Your task to perform on an android device: Search for jbl flip 4 on amazon, select the first entry, and add it to the cart. Image 0: 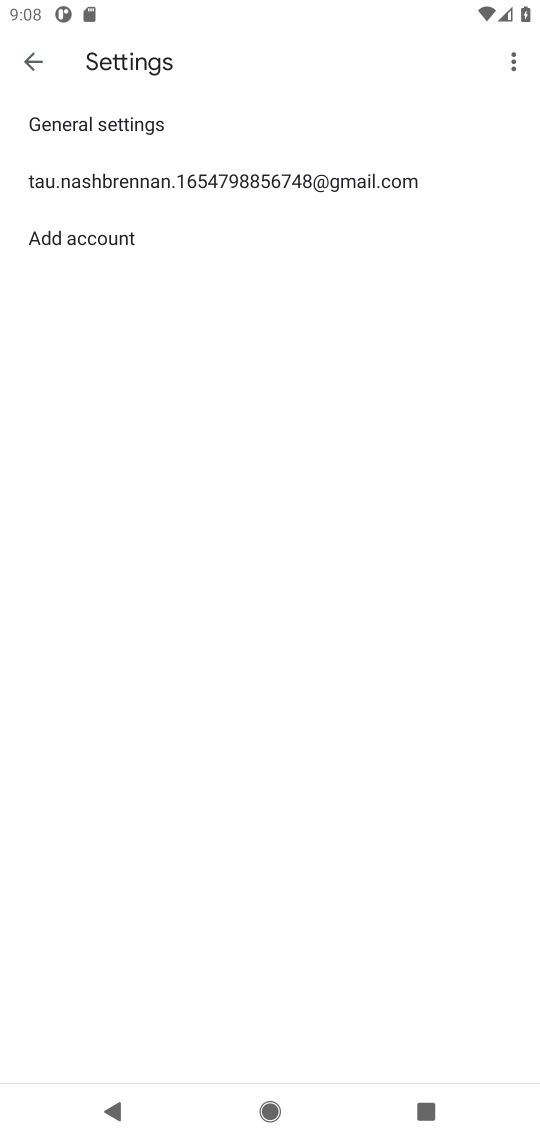
Step 0: press home button
Your task to perform on an android device: Search for jbl flip 4 on amazon, select the first entry, and add it to the cart. Image 1: 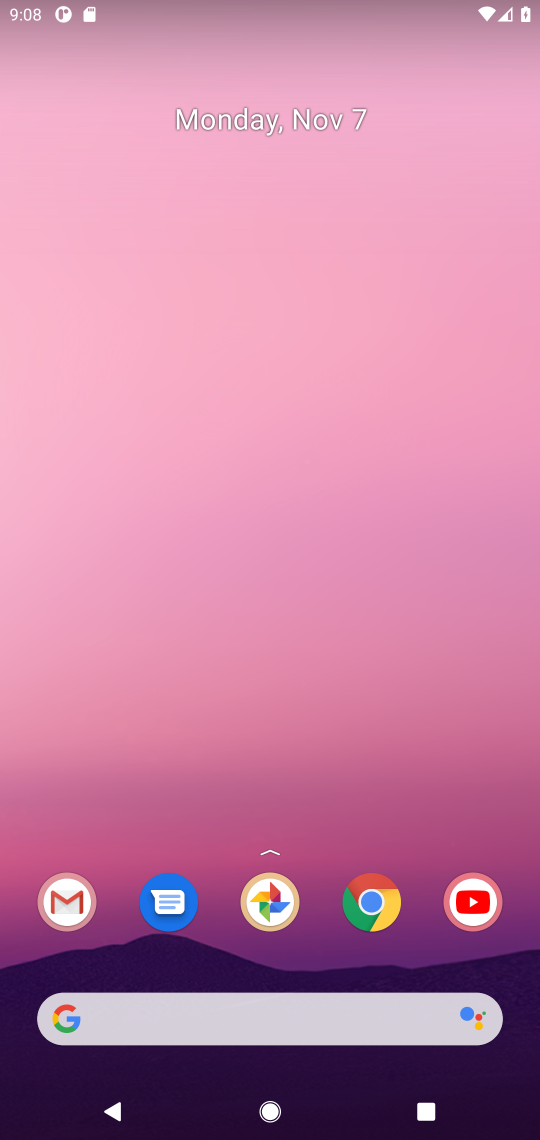
Step 1: click (369, 908)
Your task to perform on an android device: Search for jbl flip 4 on amazon, select the first entry, and add it to the cart. Image 2: 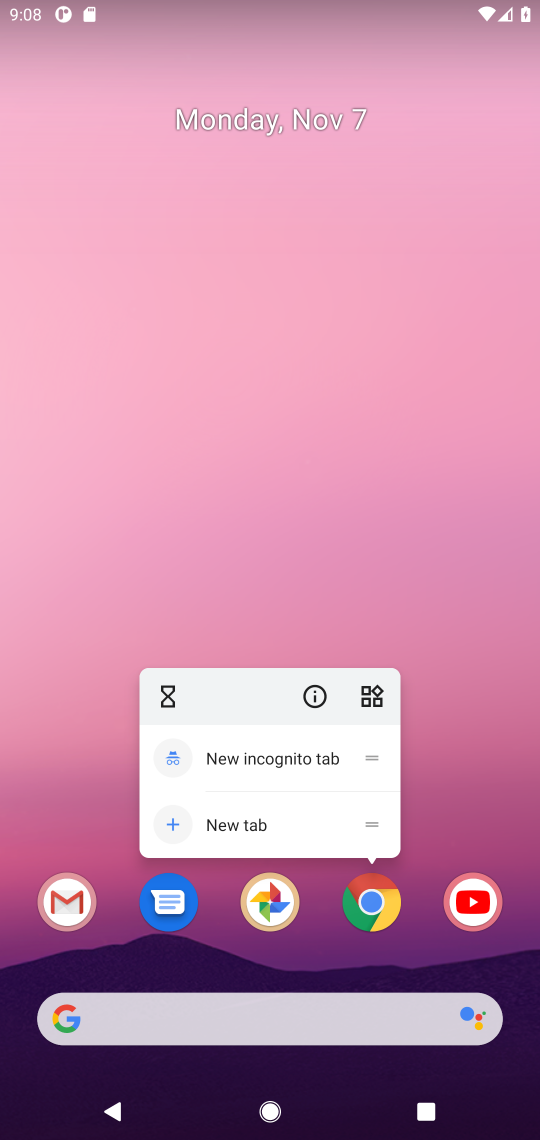
Step 2: click (370, 910)
Your task to perform on an android device: Search for jbl flip 4 on amazon, select the first entry, and add it to the cart. Image 3: 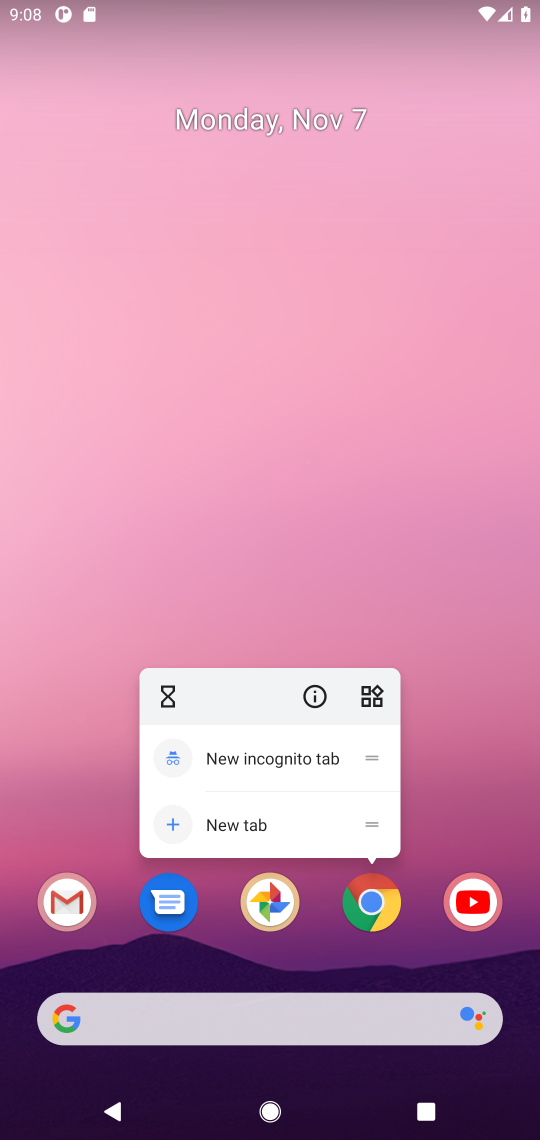
Step 3: click (370, 911)
Your task to perform on an android device: Search for jbl flip 4 on amazon, select the first entry, and add it to the cart. Image 4: 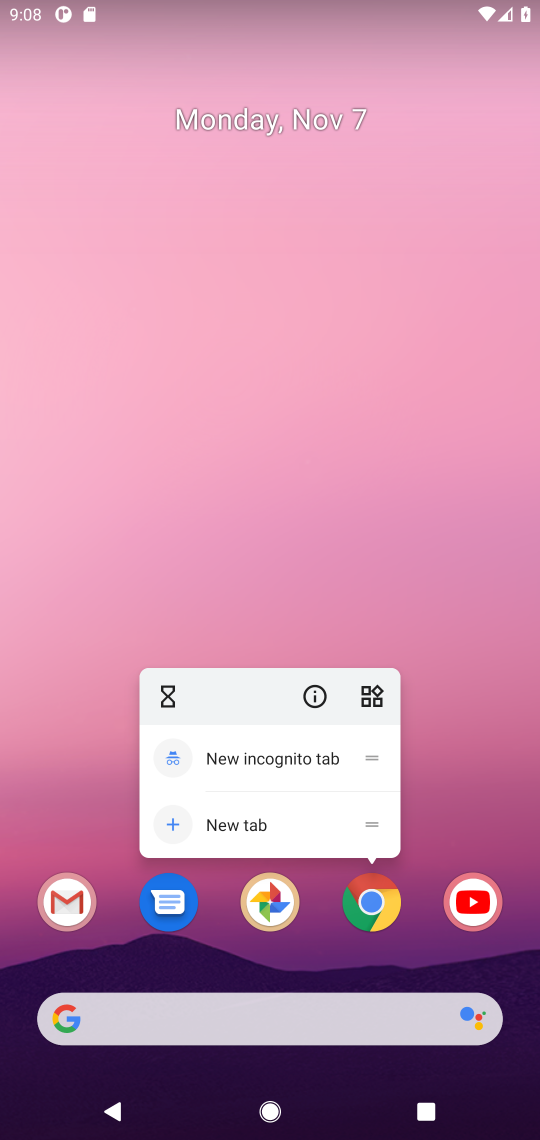
Step 4: click (370, 911)
Your task to perform on an android device: Search for jbl flip 4 on amazon, select the first entry, and add it to the cart. Image 5: 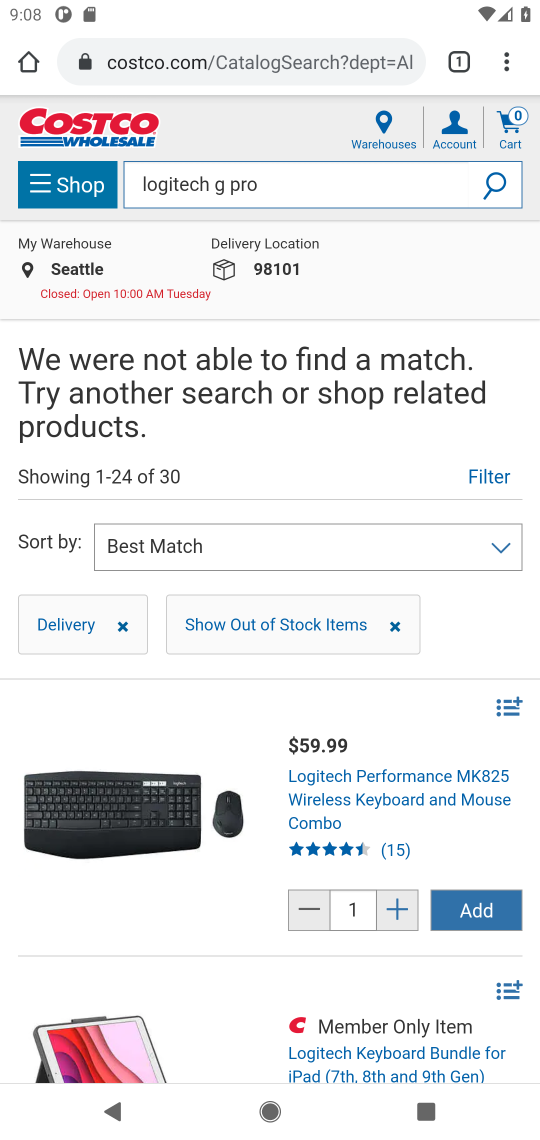
Step 5: click (246, 41)
Your task to perform on an android device: Search for jbl flip 4 on amazon, select the first entry, and add it to the cart. Image 6: 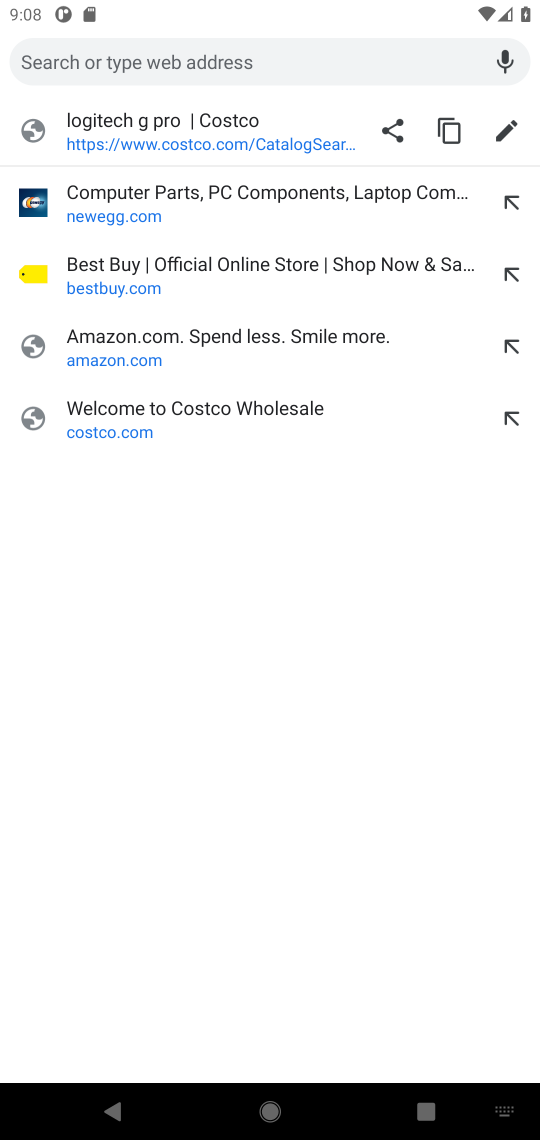
Step 6: click (82, 335)
Your task to perform on an android device: Search for jbl flip 4 on amazon, select the first entry, and add it to the cart. Image 7: 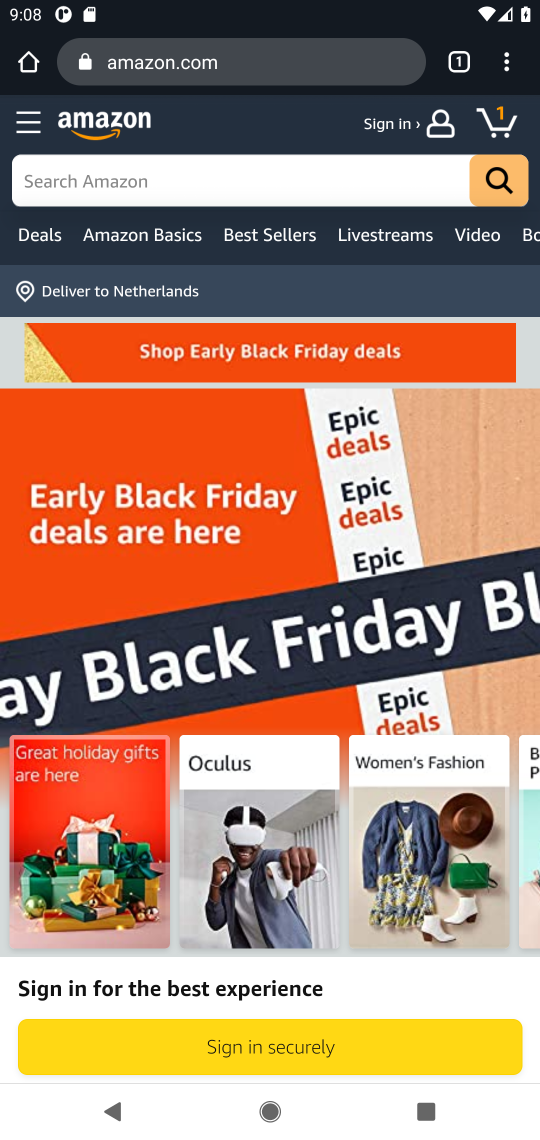
Step 7: click (135, 195)
Your task to perform on an android device: Search for jbl flip 4 on amazon, select the first entry, and add it to the cart. Image 8: 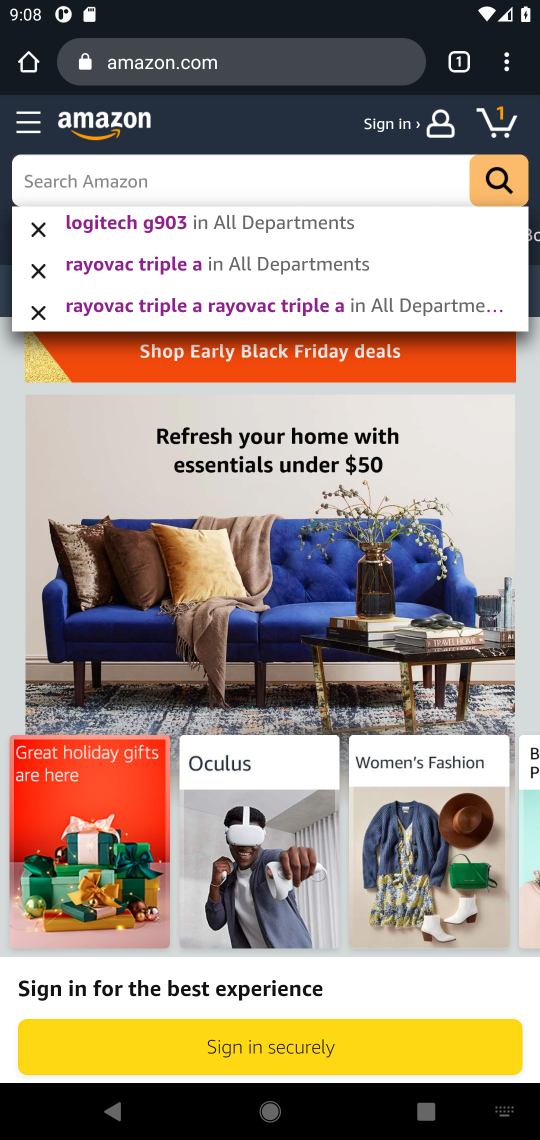
Step 8: click (66, 181)
Your task to perform on an android device: Search for jbl flip 4 on amazon, select the first entry, and add it to the cart. Image 9: 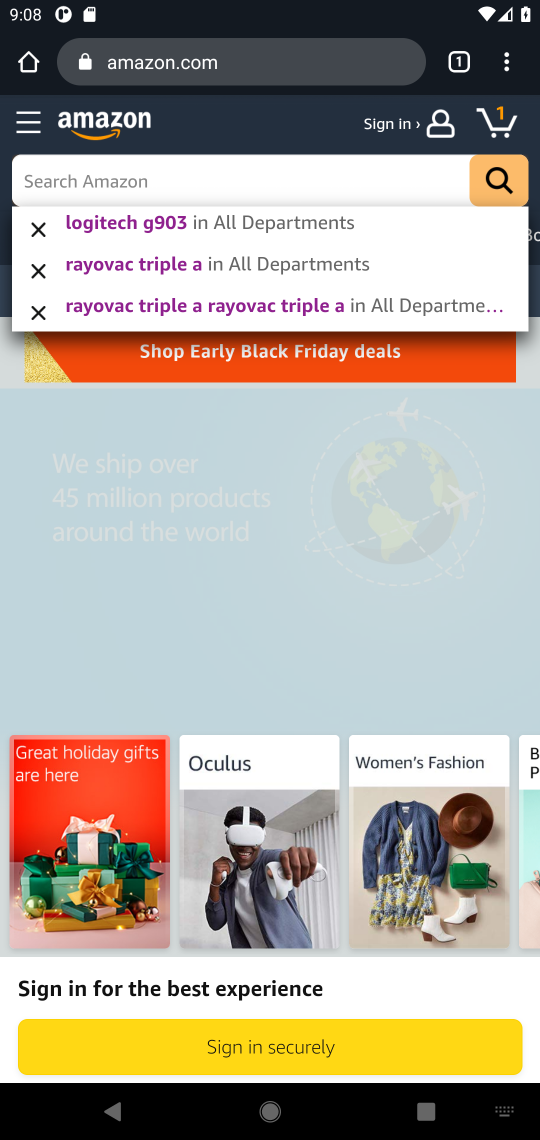
Step 9: type " jbl flip 4"
Your task to perform on an android device: Search for jbl flip 4 on amazon, select the first entry, and add it to the cart. Image 10: 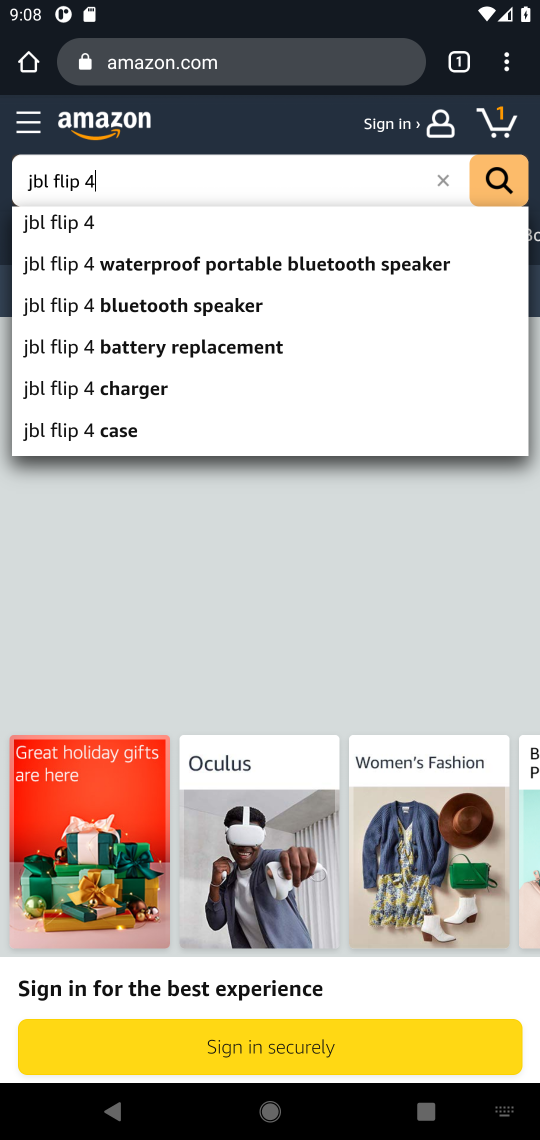
Step 10: click (47, 231)
Your task to perform on an android device: Search for jbl flip 4 on amazon, select the first entry, and add it to the cart. Image 11: 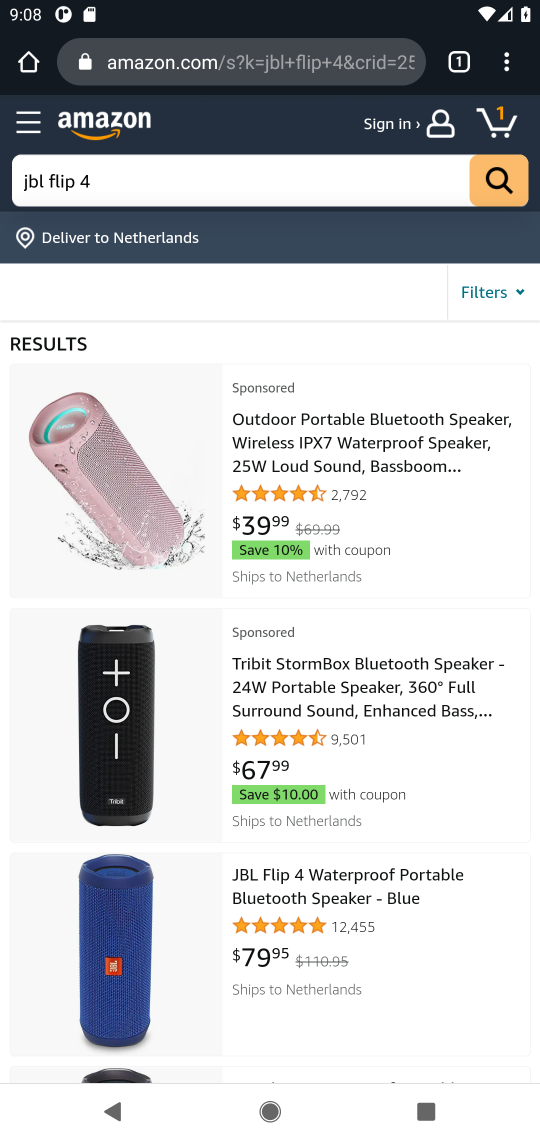
Step 11: task complete